Your task to perform on an android device: clear history in the chrome app Image 0: 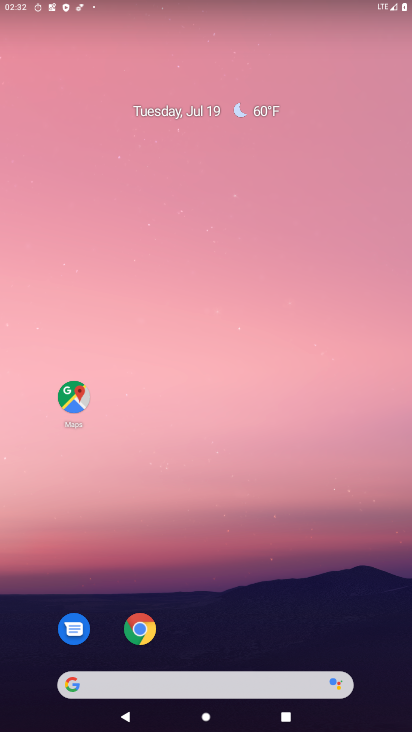
Step 0: click (150, 627)
Your task to perform on an android device: clear history in the chrome app Image 1: 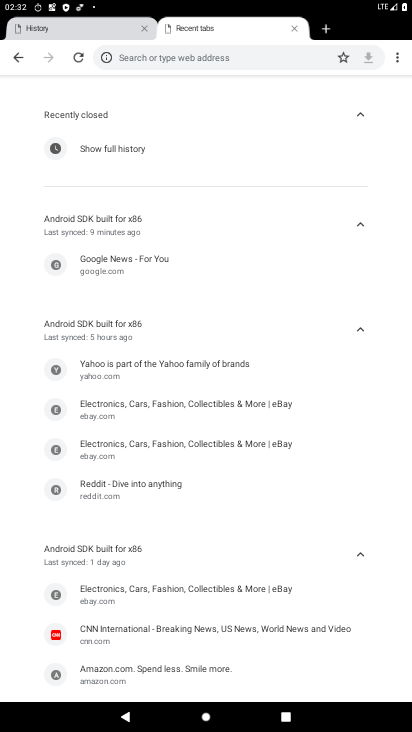
Step 1: click (392, 57)
Your task to perform on an android device: clear history in the chrome app Image 2: 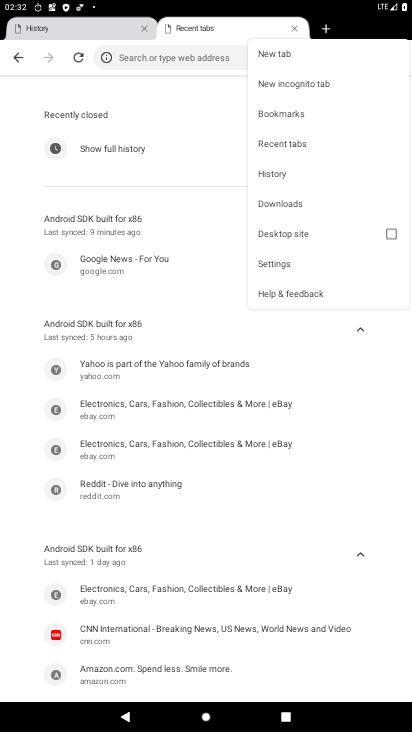
Step 2: click (286, 174)
Your task to perform on an android device: clear history in the chrome app Image 3: 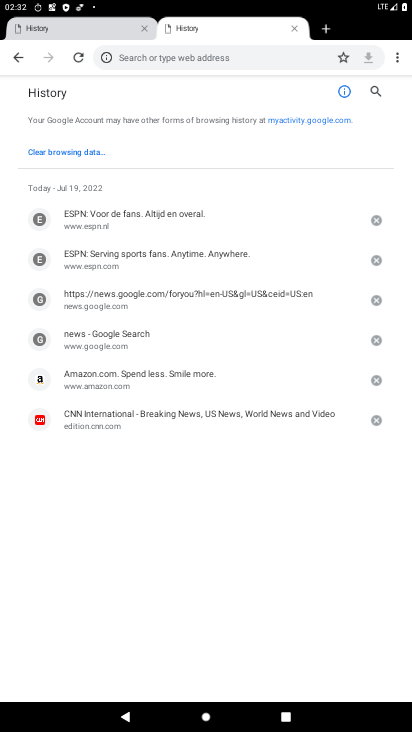
Step 3: click (57, 155)
Your task to perform on an android device: clear history in the chrome app Image 4: 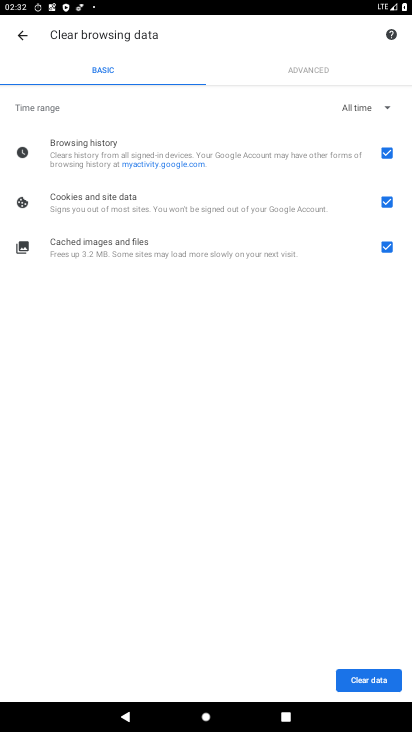
Step 4: click (353, 675)
Your task to perform on an android device: clear history in the chrome app Image 5: 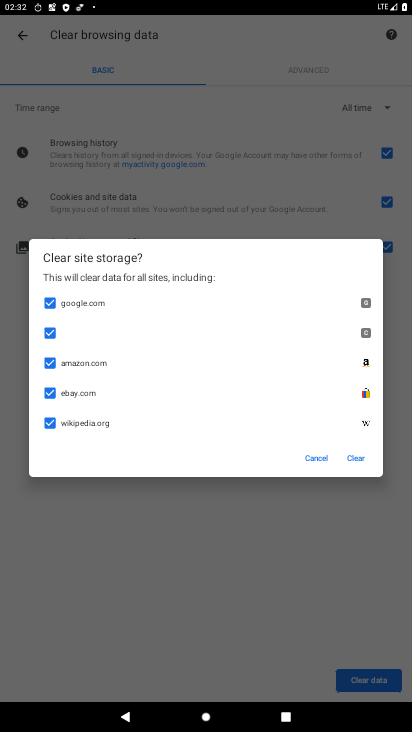
Step 5: click (355, 459)
Your task to perform on an android device: clear history in the chrome app Image 6: 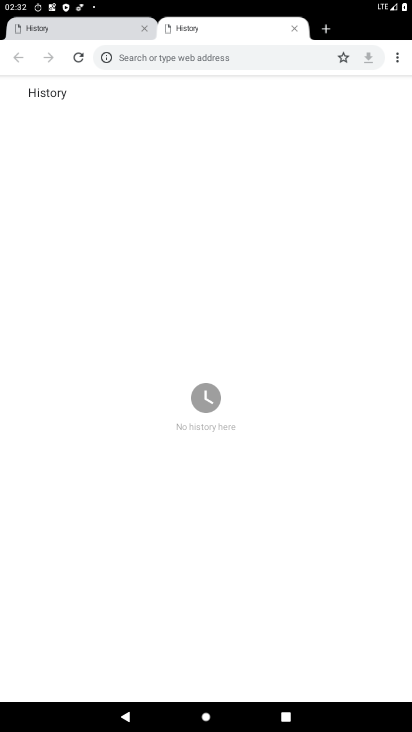
Step 6: task complete